Your task to perform on an android device: delete the emails in spam in the gmail app Image 0: 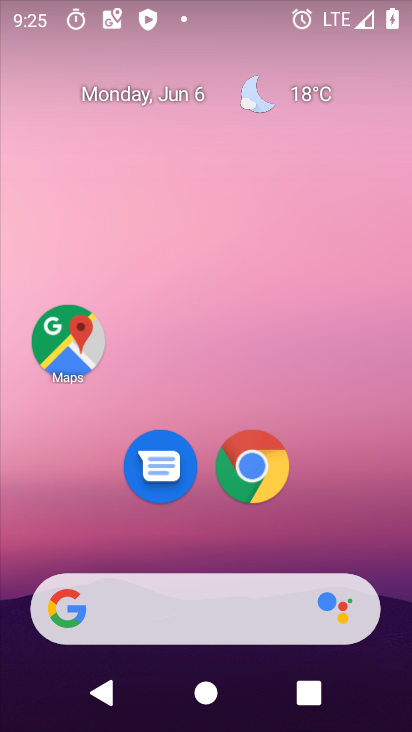
Step 0: click (225, 22)
Your task to perform on an android device: delete the emails in spam in the gmail app Image 1: 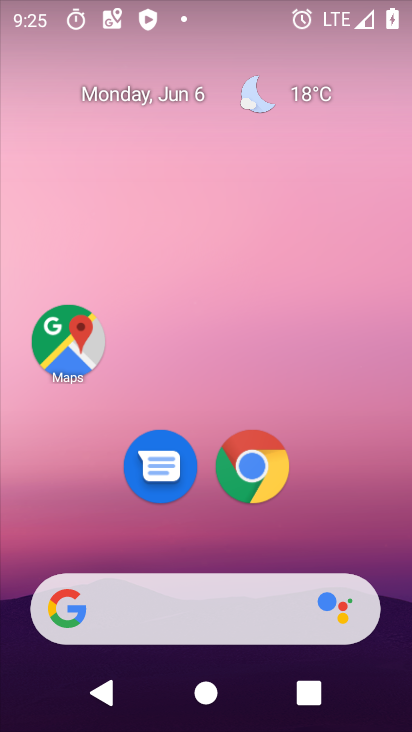
Step 1: press home button
Your task to perform on an android device: delete the emails in spam in the gmail app Image 2: 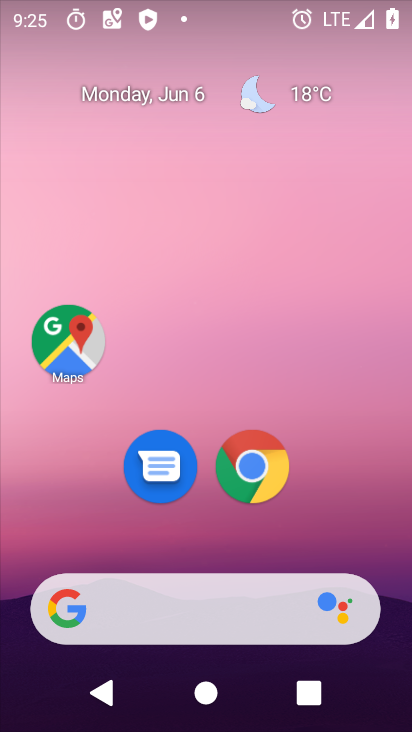
Step 2: click (65, 351)
Your task to perform on an android device: delete the emails in spam in the gmail app Image 3: 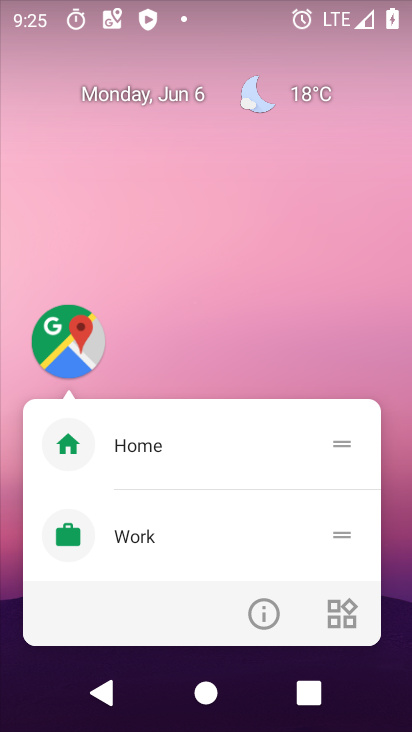
Step 3: click (267, 596)
Your task to perform on an android device: delete the emails in spam in the gmail app Image 4: 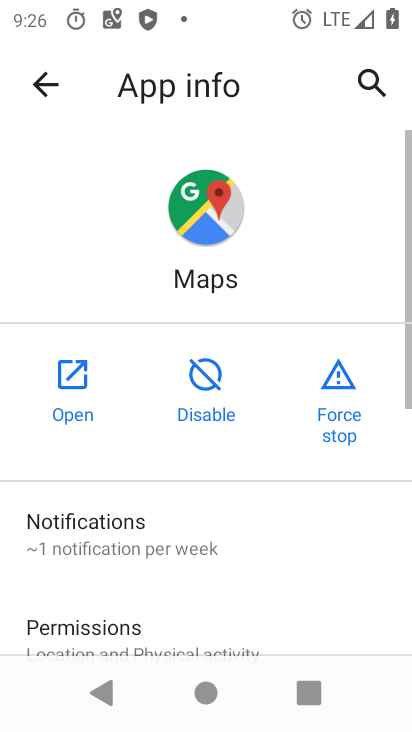
Step 4: click (76, 405)
Your task to perform on an android device: delete the emails in spam in the gmail app Image 5: 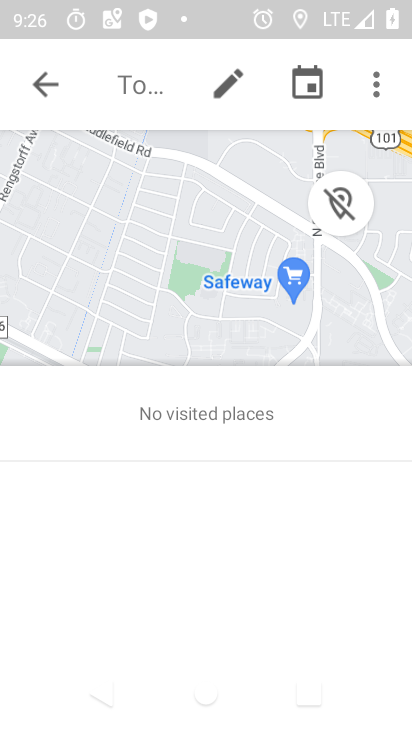
Step 5: click (45, 88)
Your task to perform on an android device: delete the emails in spam in the gmail app Image 6: 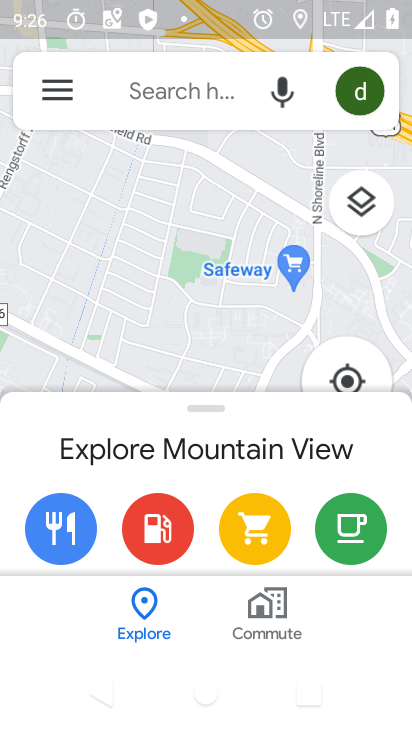
Step 6: press home button
Your task to perform on an android device: delete the emails in spam in the gmail app Image 7: 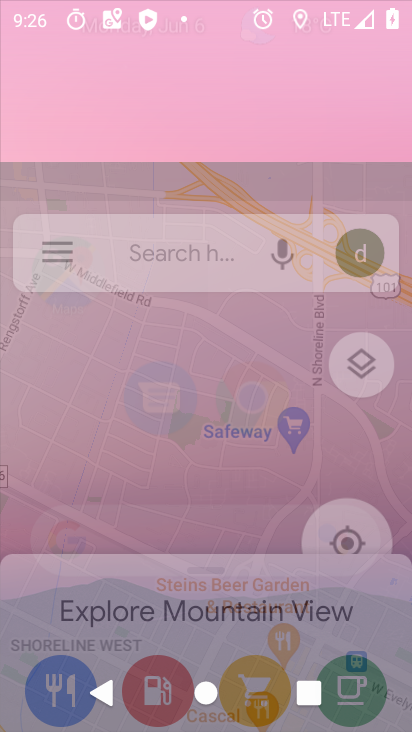
Step 7: drag from (131, 494) to (191, 13)
Your task to perform on an android device: delete the emails in spam in the gmail app Image 8: 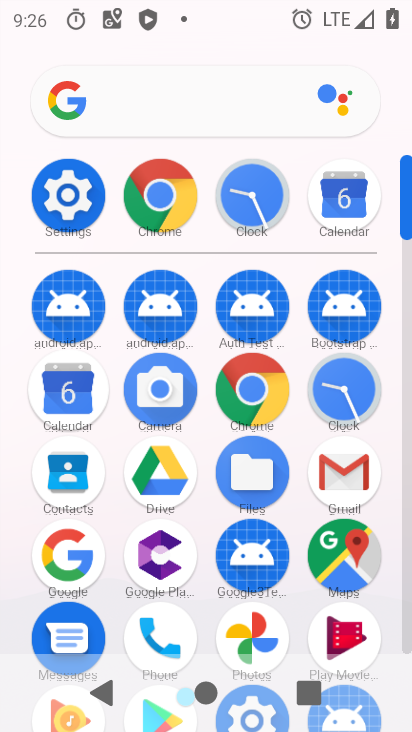
Step 8: click (345, 467)
Your task to perform on an android device: delete the emails in spam in the gmail app Image 9: 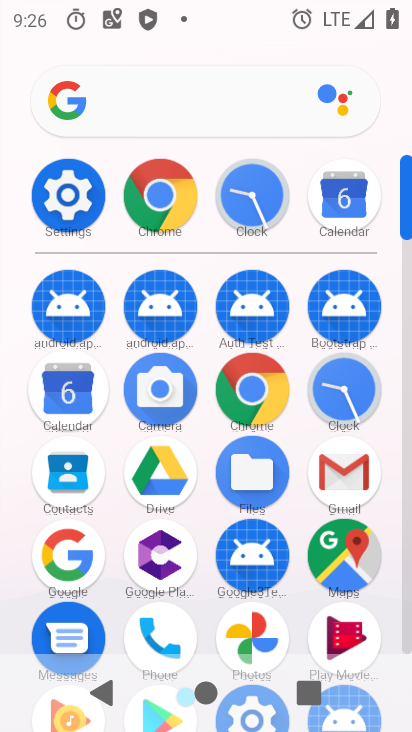
Step 9: click (345, 467)
Your task to perform on an android device: delete the emails in spam in the gmail app Image 10: 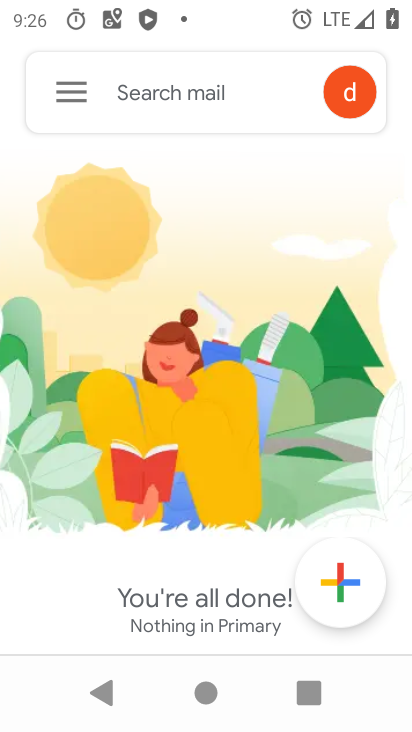
Step 10: click (68, 90)
Your task to perform on an android device: delete the emails in spam in the gmail app Image 11: 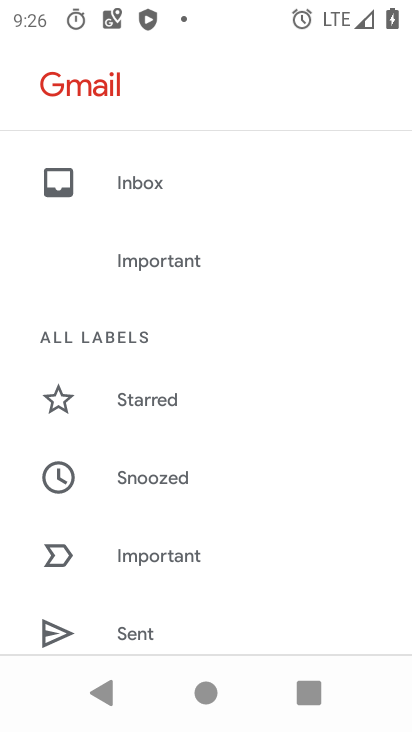
Step 11: drag from (197, 450) to (244, 176)
Your task to perform on an android device: delete the emails in spam in the gmail app Image 12: 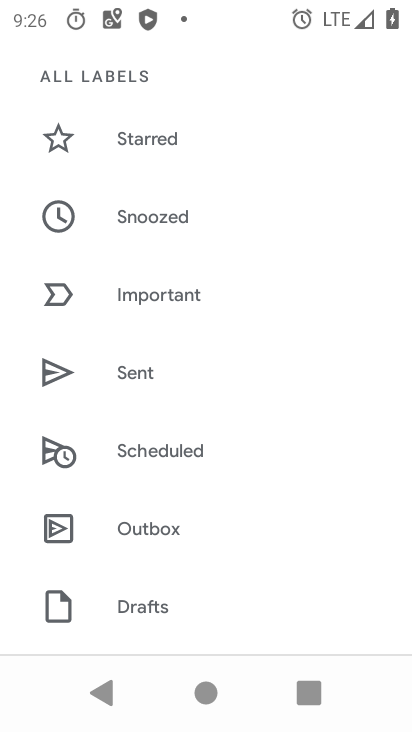
Step 12: drag from (178, 489) to (230, 100)
Your task to perform on an android device: delete the emails in spam in the gmail app Image 13: 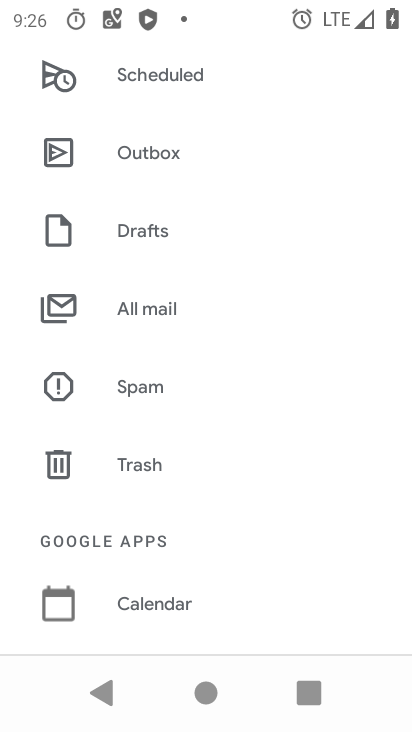
Step 13: click (158, 400)
Your task to perform on an android device: delete the emails in spam in the gmail app Image 14: 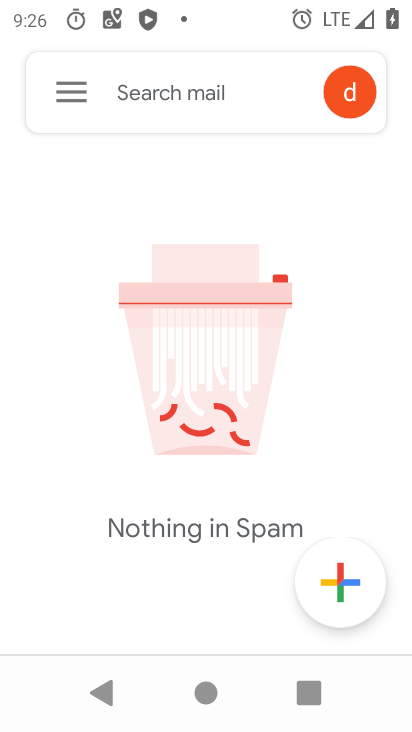
Step 14: task complete